Your task to perform on an android device: Search for Italian restaurants on Maps Image 0: 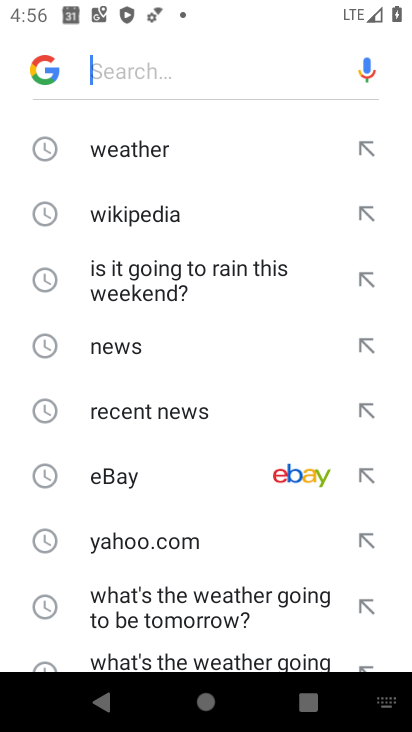
Step 0: press home button
Your task to perform on an android device: Search for Italian restaurants on Maps Image 1: 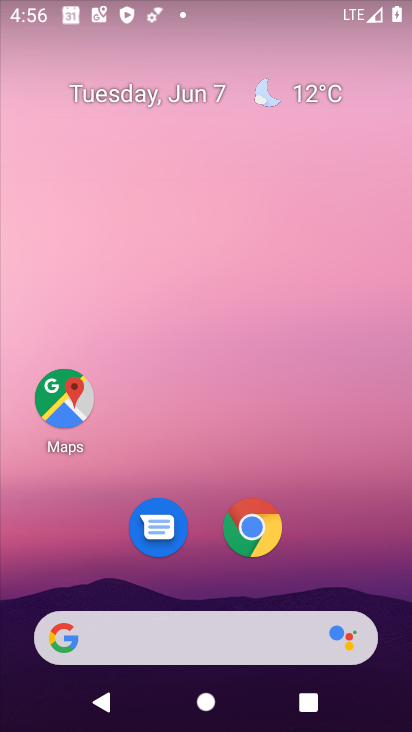
Step 1: click (63, 399)
Your task to perform on an android device: Search for Italian restaurants on Maps Image 2: 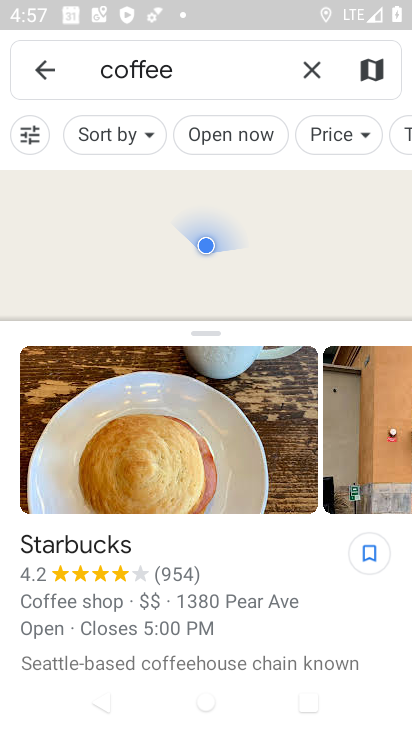
Step 2: click (309, 66)
Your task to perform on an android device: Search for Italian restaurants on Maps Image 3: 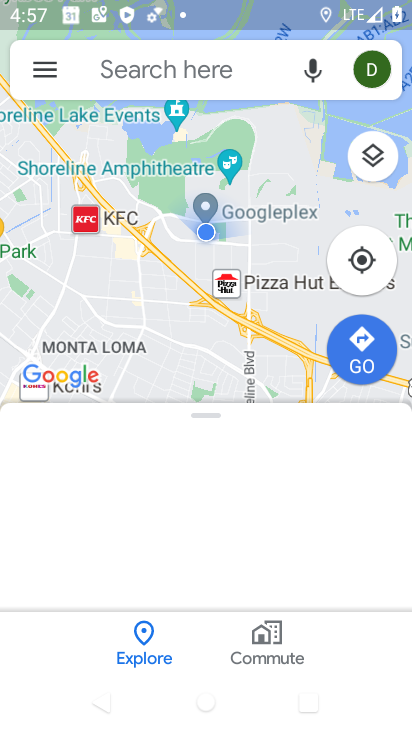
Step 3: click (173, 71)
Your task to perform on an android device: Search for Italian restaurants on Maps Image 4: 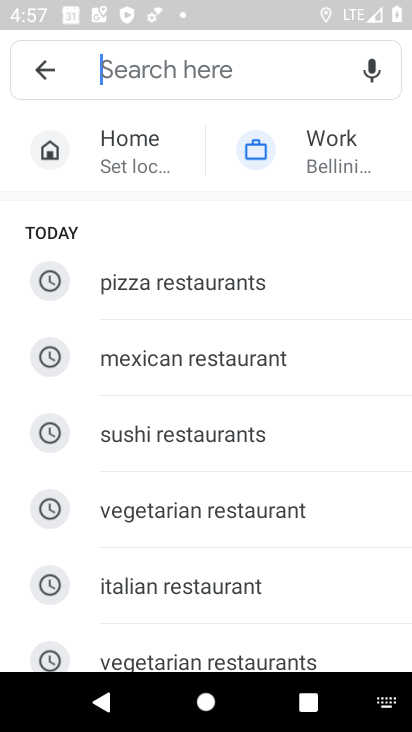
Step 4: click (206, 582)
Your task to perform on an android device: Search for Italian restaurants on Maps Image 5: 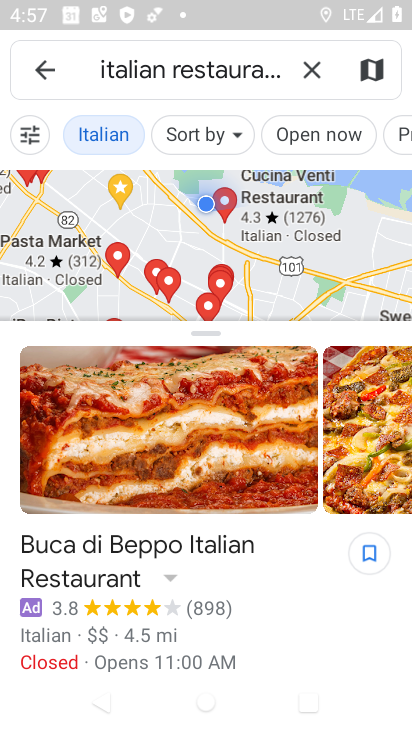
Step 5: task complete